Your task to perform on an android device: change the clock display to show seconds Image 0: 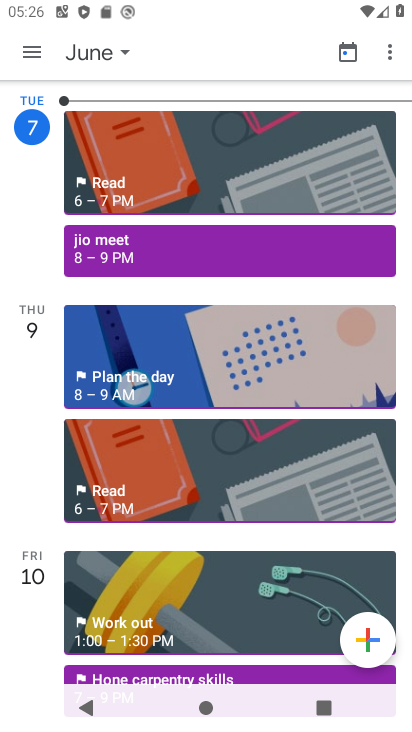
Step 0: press back button
Your task to perform on an android device: change the clock display to show seconds Image 1: 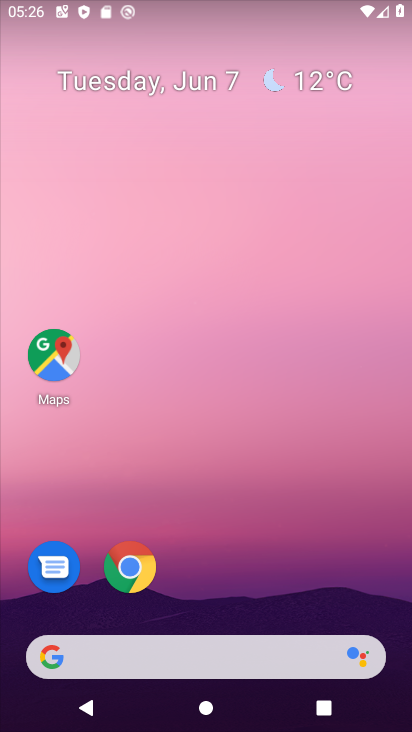
Step 1: drag from (253, 565) to (190, 21)
Your task to perform on an android device: change the clock display to show seconds Image 2: 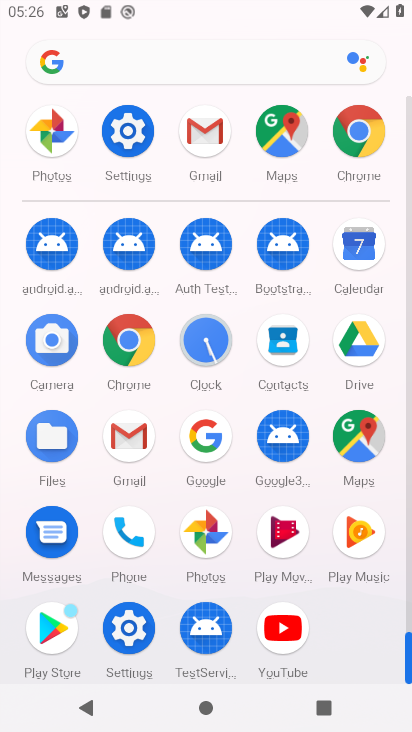
Step 2: drag from (4, 517) to (37, 147)
Your task to perform on an android device: change the clock display to show seconds Image 3: 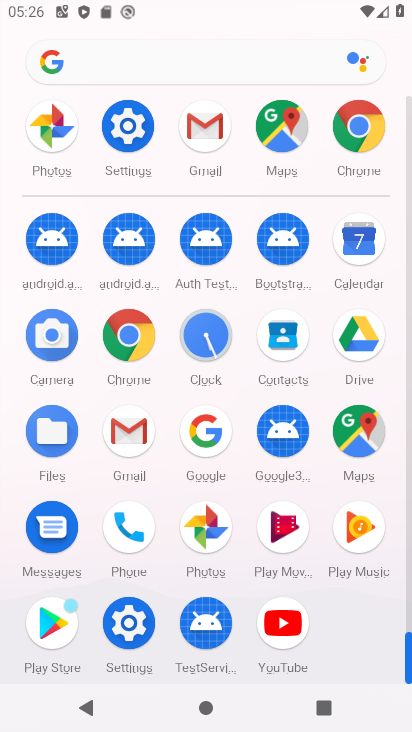
Step 3: click (205, 331)
Your task to perform on an android device: change the clock display to show seconds Image 4: 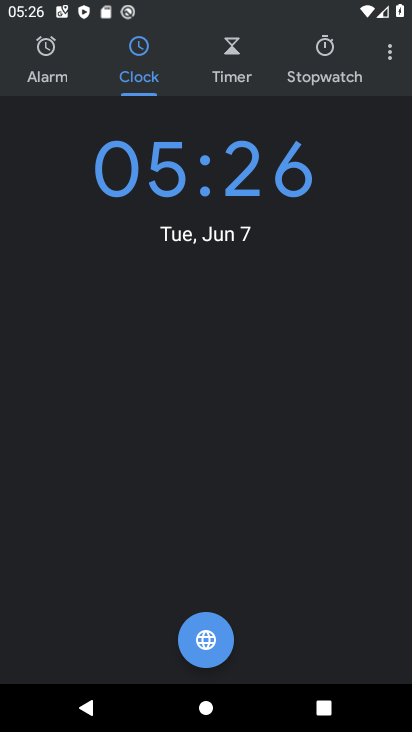
Step 4: drag from (378, 52) to (307, 99)
Your task to perform on an android device: change the clock display to show seconds Image 5: 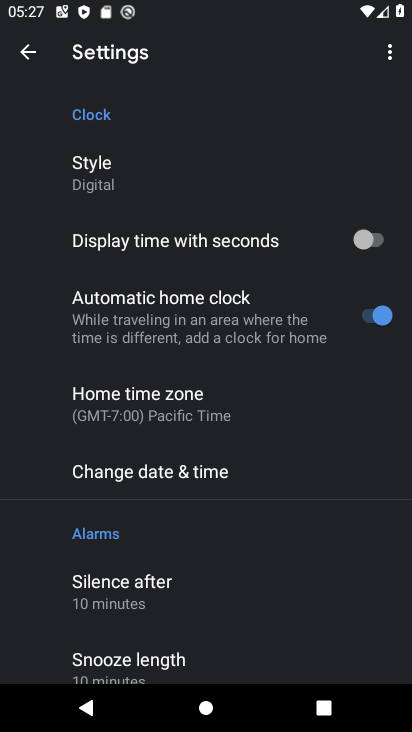
Step 5: click (373, 234)
Your task to perform on an android device: change the clock display to show seconds Image 6: 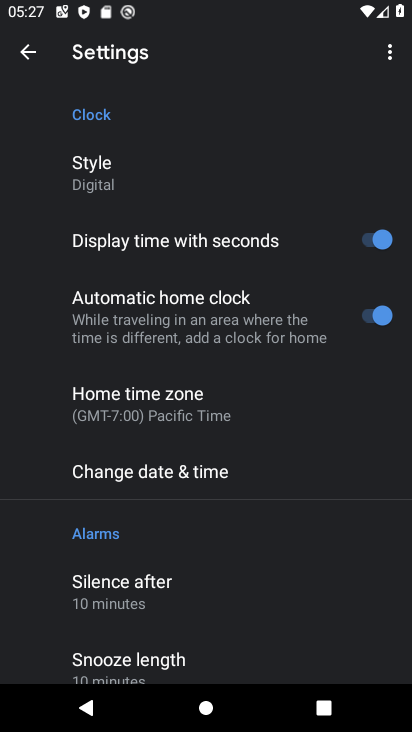
Step 6: task complete